Your task to perform on an android device: add a contact Image 0: 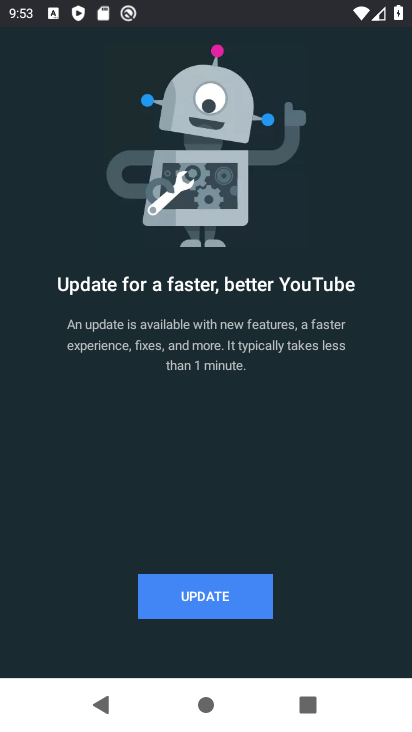
Step 0: press home button
Your task to perform on an android device: add a contact Image 1: 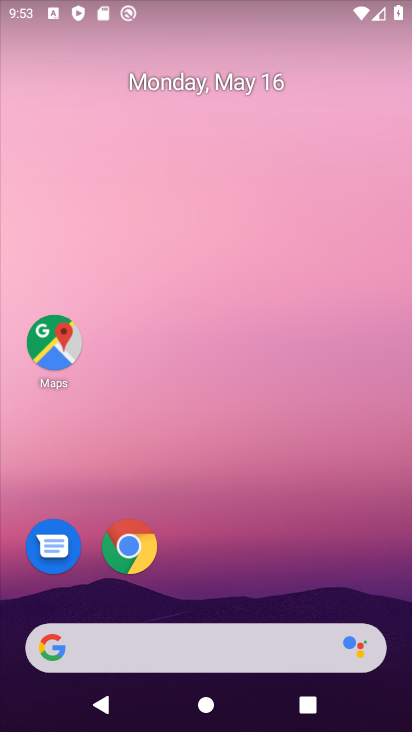
Step 1: drag from (194, 624) to (250, 57)
Your task to perform on an android device: add a contact Image 2: 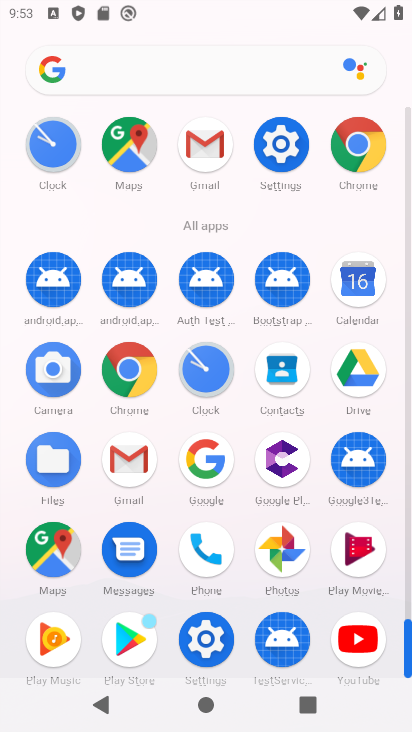
Step 2: click (195, 538)
Your task to perform on an android device: add a contact Image 3: 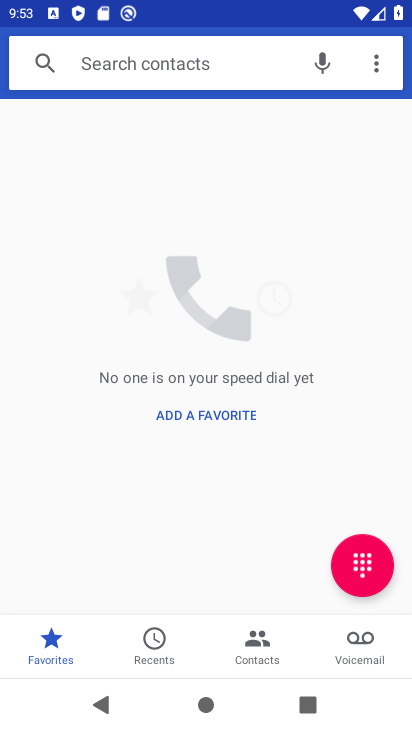
Step 3: click (247, 644)
Your task to perform on an android device: add a contact Image 4: 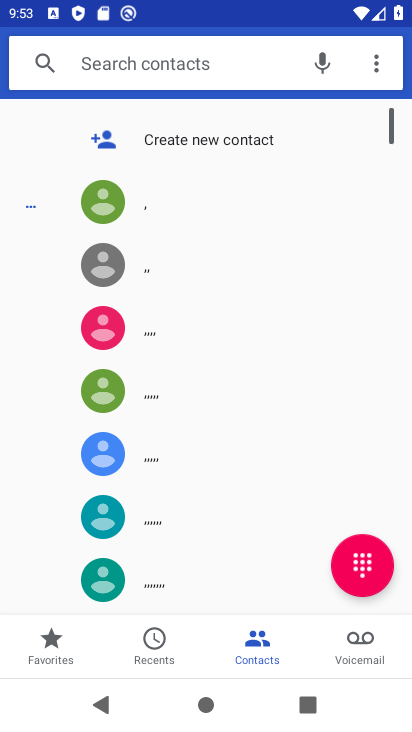
Step 4: click (229, 123)
Your task to perform on an android device: add a contact Image 5: 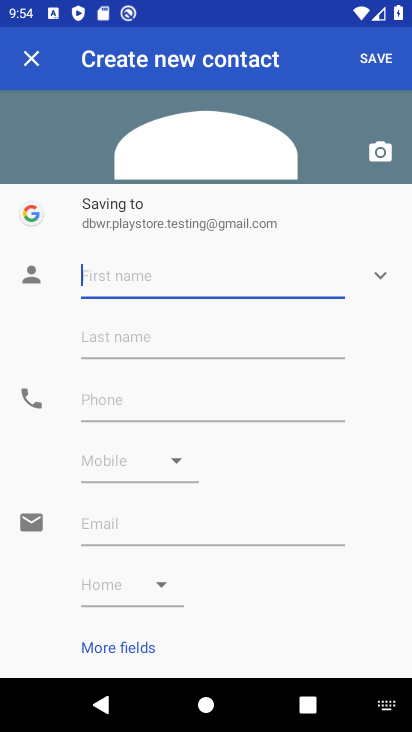
Step 5: type "kay"
Your task to perform on an android device: add a contact Image 6: 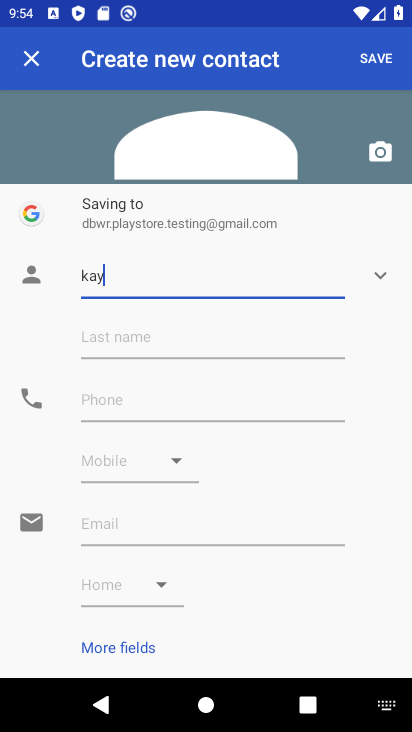
Step 6: click (163, 395)
Your task to perform on an android device: add a contact Image 7: 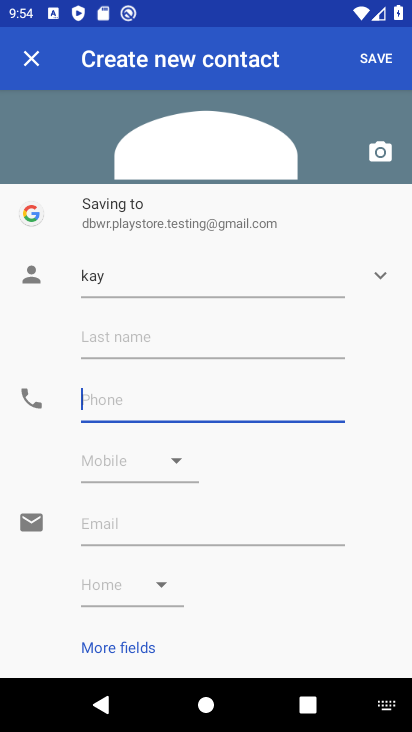
Step 7: type "9876567"
Your task to perform on an android device: add a contact Image 8: 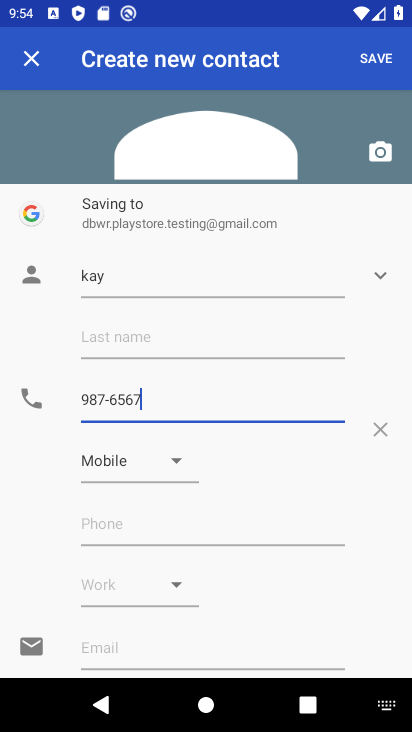
Step 8: click (377, 65)
Your task to perform on an android device: add a contact Image 9: 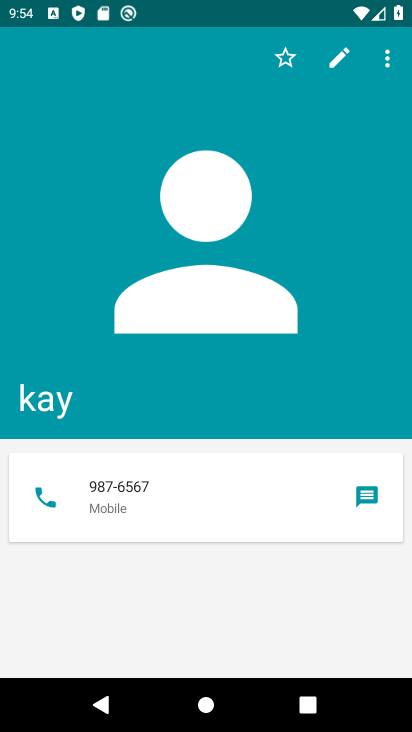
Step 9: task complete